Your task to perform on an android device: Open the stopwatch Image 0: 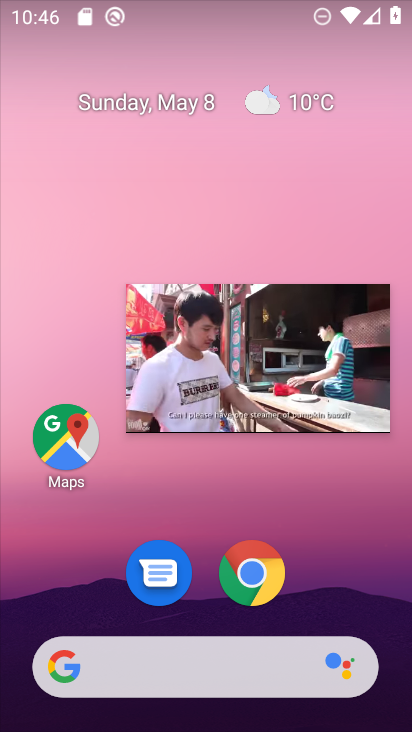
Step 0: drag from (318, 543) to (335, 172)
Your task to perform on an android device: Open the stopwatch Image 1: 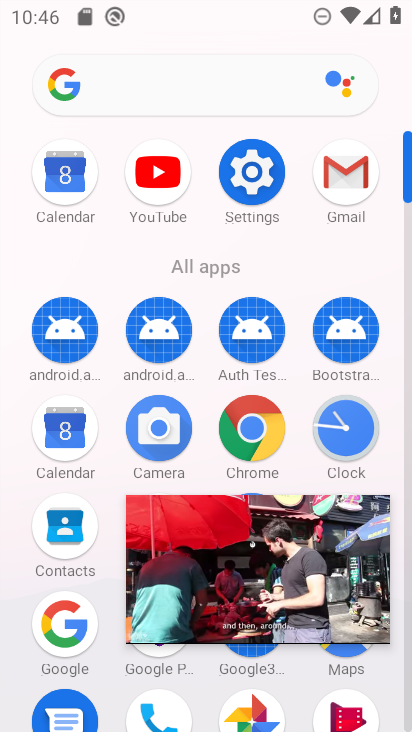
Step 1: drag from (356, 513) to (292, 730)
Your task to perform on an android device: Open the stopwatch Image 2: 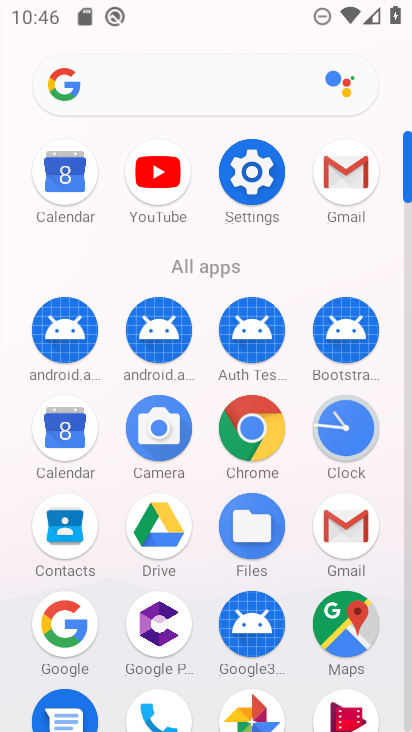
Step 2: click (339, 425)
Your task to perform on an android device: Open the stopwatch Image 3: 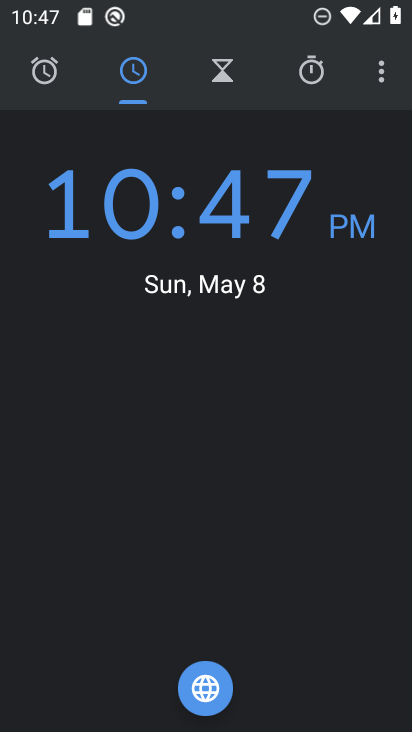
Step 3: click (300, 93)
Your task to perform on an android device: Open the stopwatch Image 4: 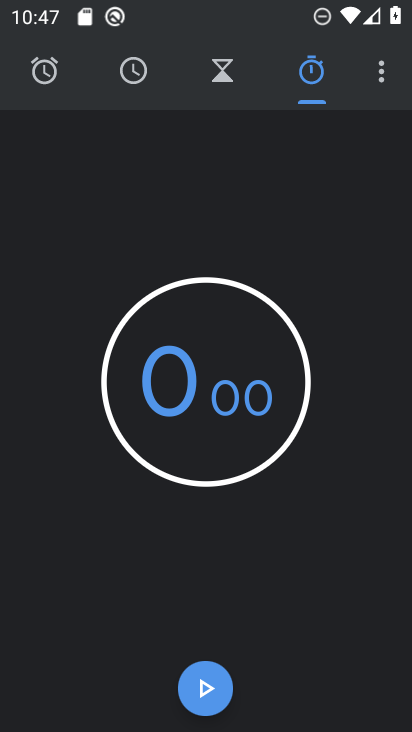
Step 4: task complete